Your task to perform on an android device: Turn off the flashlight Image 0: 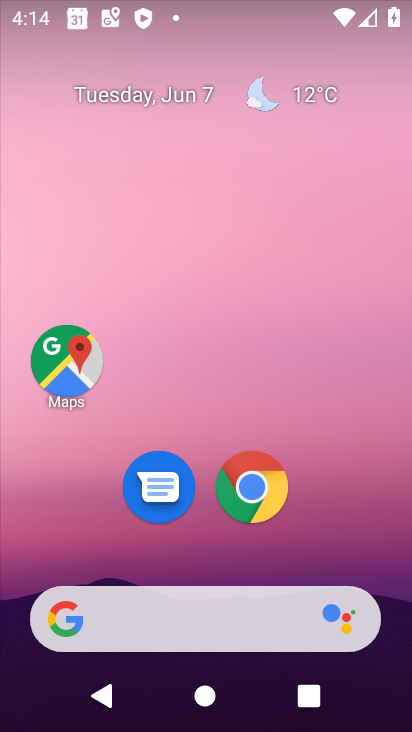
Step 0: drag from (169, 566) to (227, 28)
Your task to perform on an android device: Turn off the flashlight Image 1: 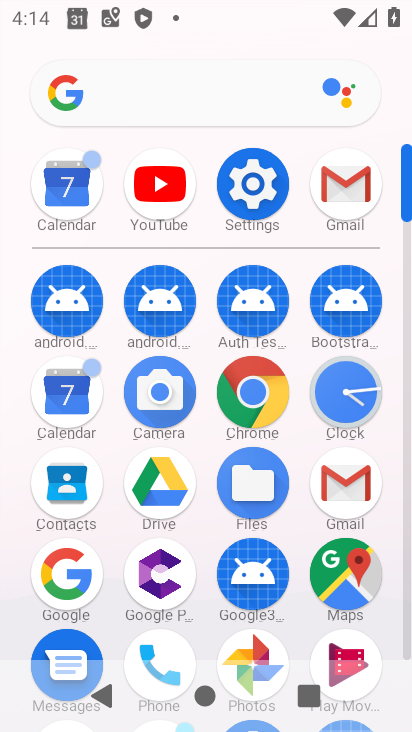
Step 1: click (262, 182)
Your task to perform on an android device: Turn off the flashlight Image 2: 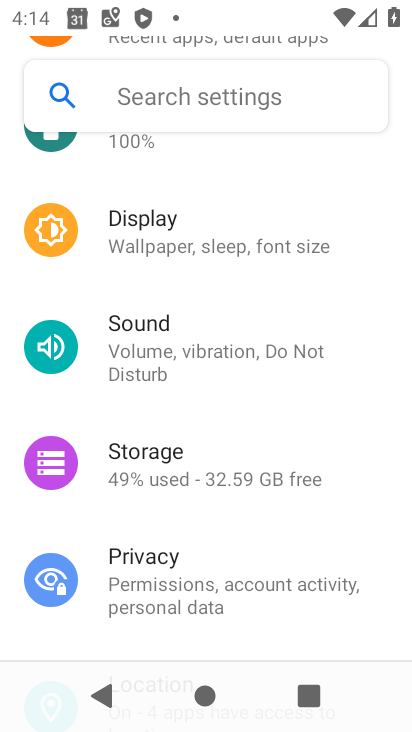
Step 2: click (178, 107)
Your task to perform on an android device: Turn off the flashlight Image 3: 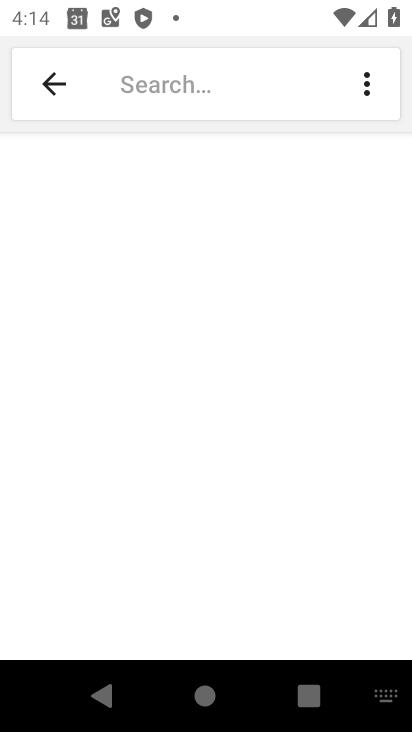
Step 3: type "flashlight"
Your task to perform on an android device: Turn off the flashlight Image 4: 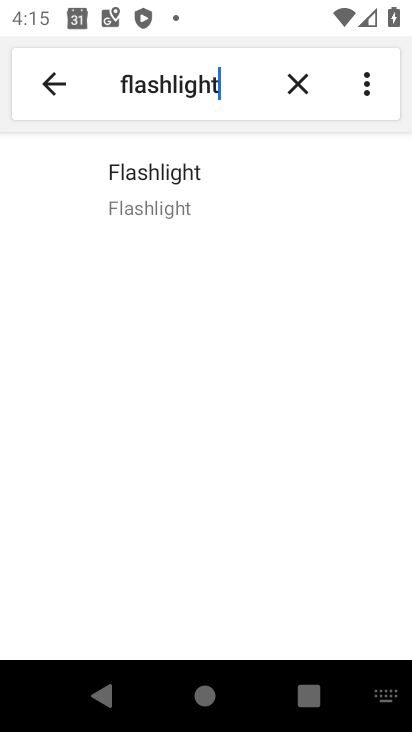
Step 4: click (180, 175)
Your task to perform on an android device: Turn off the flashlight Image 5: 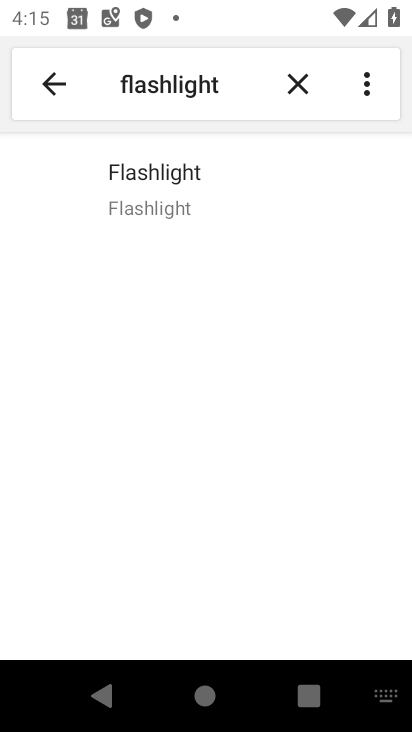
Step 5: task complete